Your task to perform on an android device: What's the weather going to be tomorrow? Image 0: 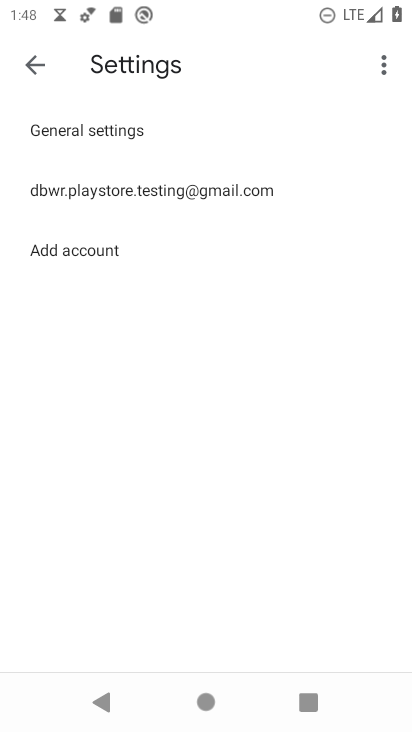
Step 0: press home button
Your task to perform on an android device: What's the weather going to be tomorrow? Image 1: 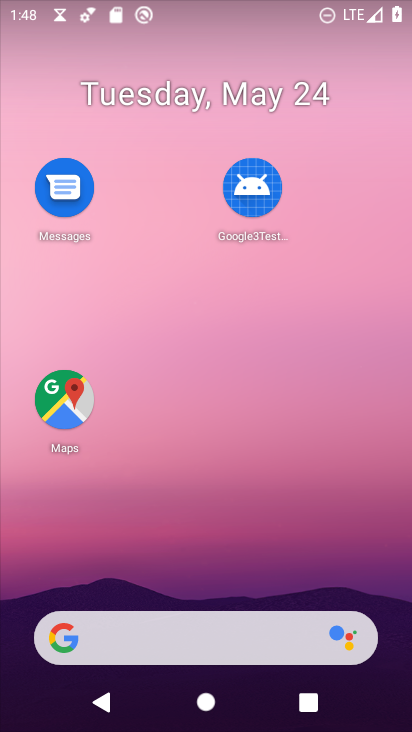
Step 1: drag from (171, 531) to (150, 67)
Your task to perform on an android device: What's the weather going to be tomorrow? Image 2: 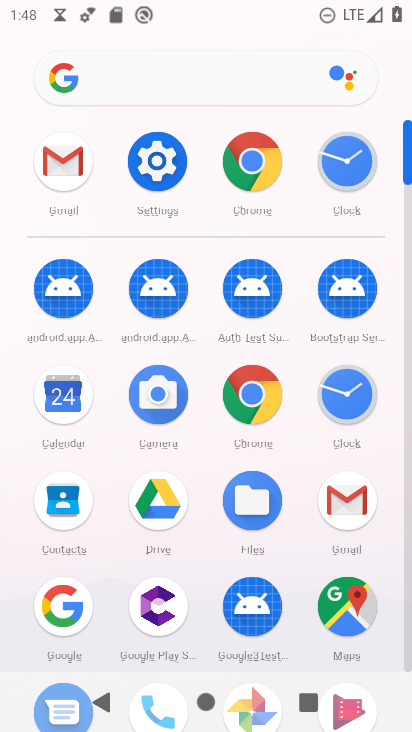
Step 2: click (57, 622)
Your task to perform on an android device: What's the weather going to be tomorrow? Image 3: 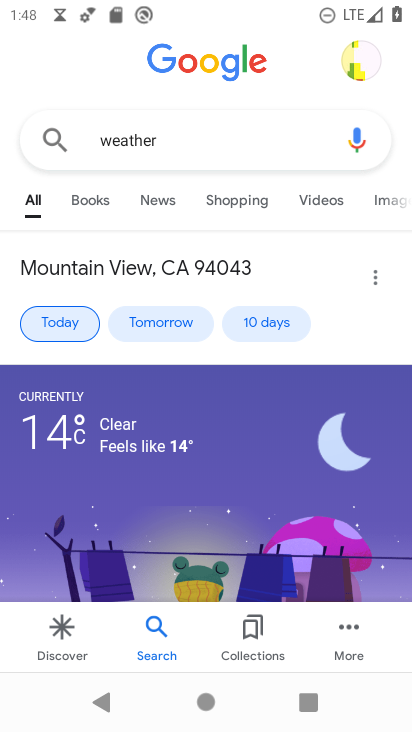
Step 3: click (139, 332)
Your task to perform on an android device: What's the weather going to be tomorrow? Image 4: 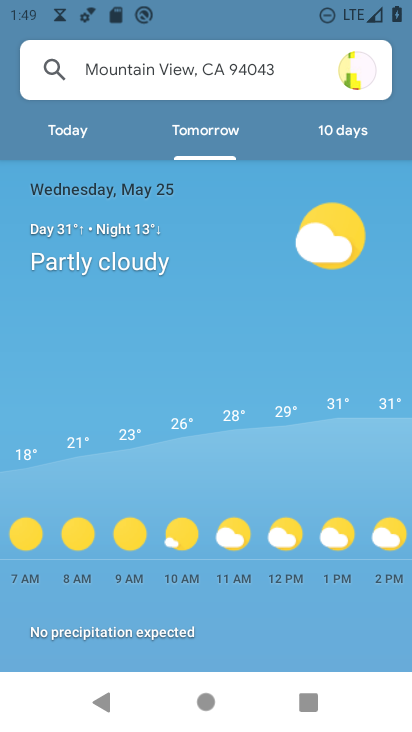
Step 4: task complete